Your task to perform on an android device: Open accessibility settings Image 0: 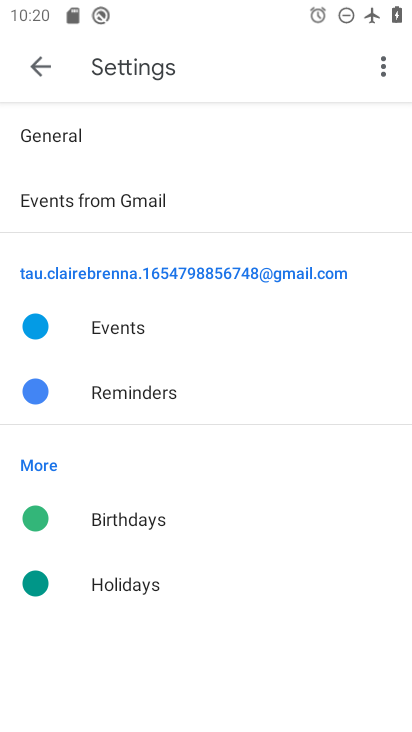
Step 0: click (32, 59)
Your task to perform on an android device: Open accessibility settings Image 1: 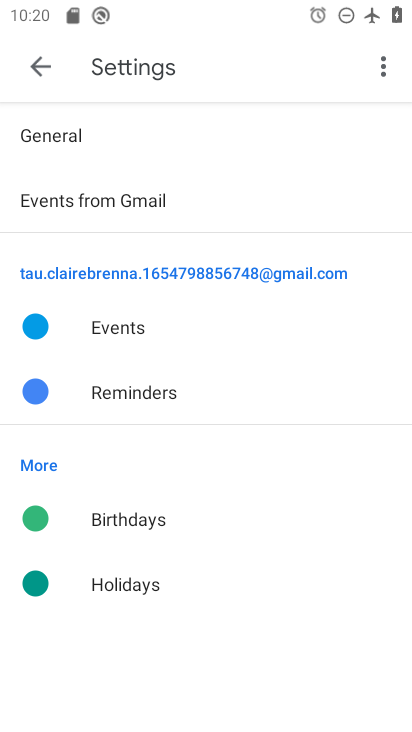
Step 1: click (32, 59)
Your task to perform on an android device: Open accessibility settings Image 2: 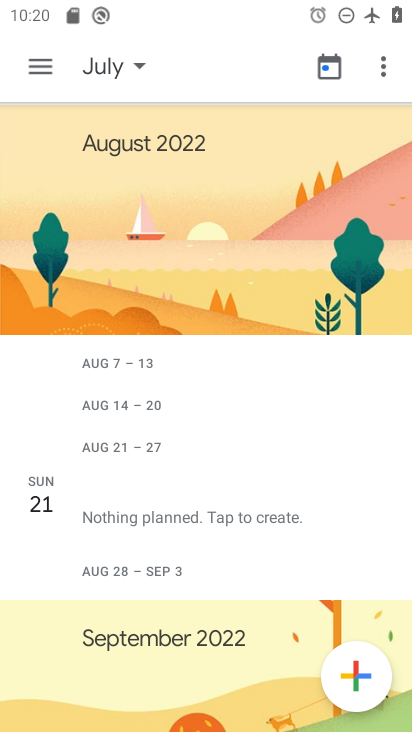
Step 2: click (32, 59)
Your task to perform on an android device: Open accessibility settings Image 3: 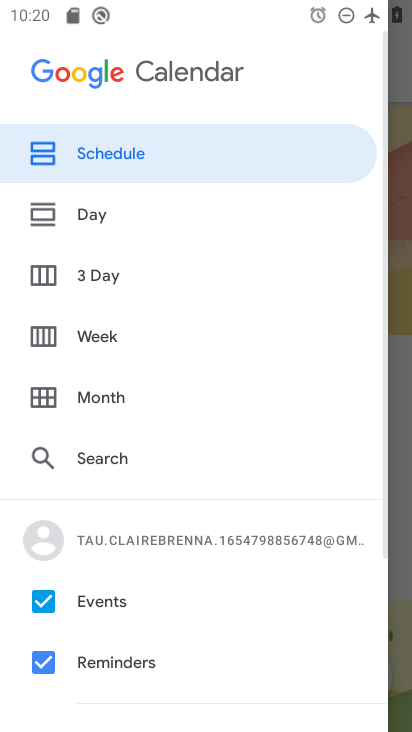
Step 3: press home button
Your task to perform on an android device: Open accessibility settings Image 4: 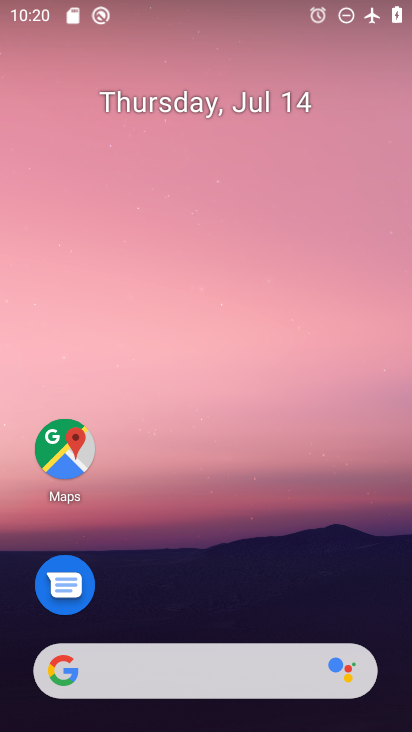
Step 4: drag from (233, 637) to (125, 58)
Your task to perform on an android device: Open accessibility settings Image 5: 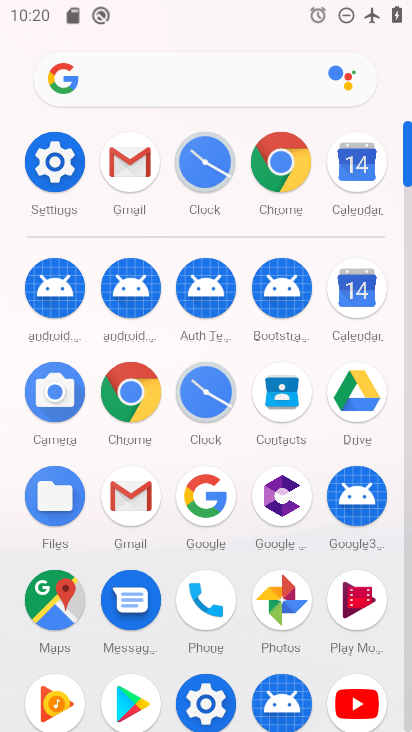
Step 5: click (55, 162)
Your task to perform on an android device: Open accessibility settings Image 6: 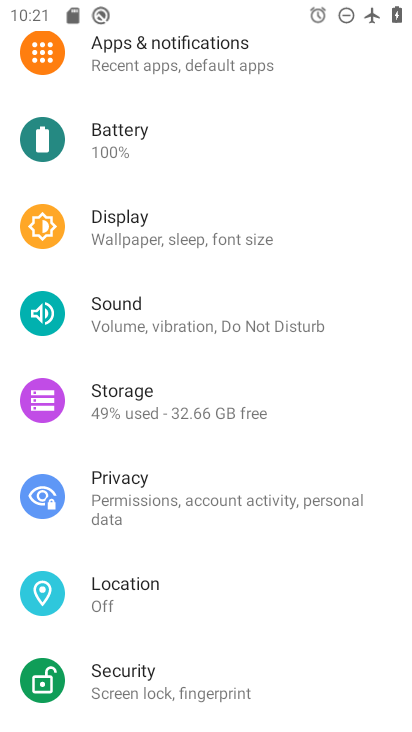
Step 6: drag from (200, 585) to (17, 0)
Your task to perform on an android device: Open accessibility settings Image 7: 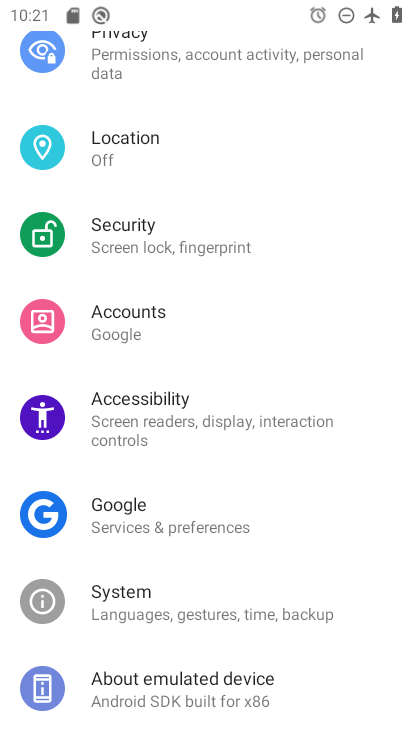
Step 7: click (173, 394)
Your task to perform on an android device: Open accessibility settings Image 8: 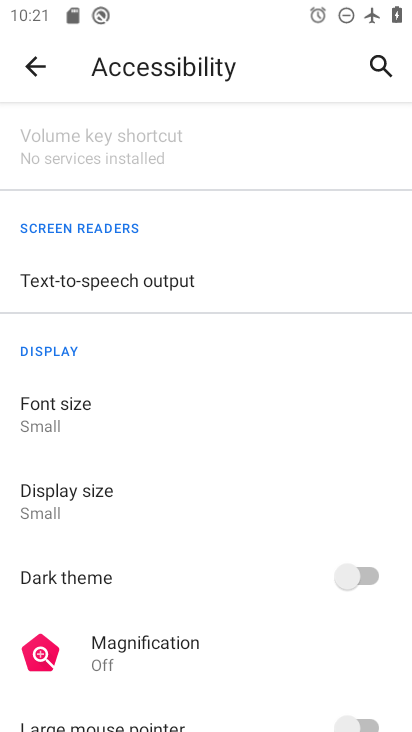
Step 8: task complete